Your task to perform on an android device: Open settings Image 0: 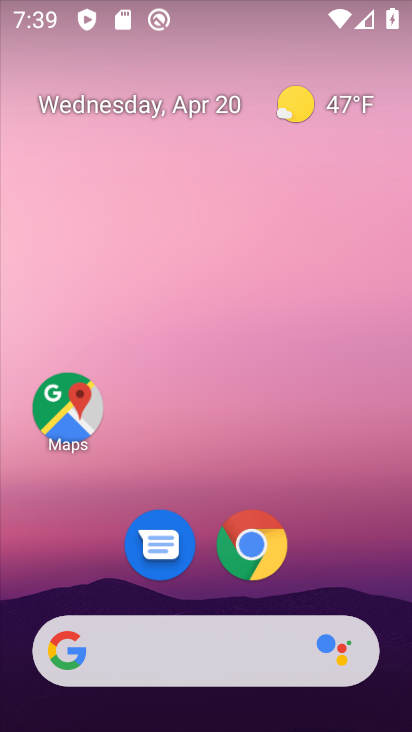
Step 0: task impossible